Your task to perform on an android device: turn off data saver in the chrome app Image 0: 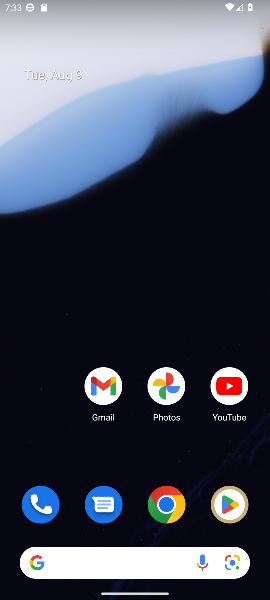
Step 0: press home button
Your task to perform on an android device: turn off data saver in the chrome app Image 1: 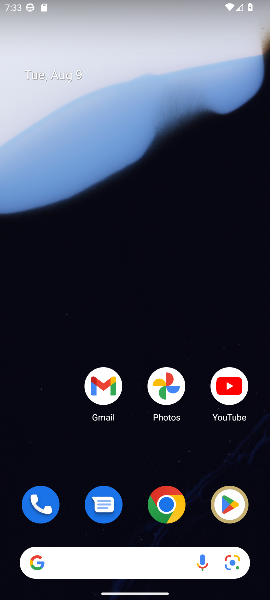
Step 1: drag from (179, 10) to (165, 178)
Your task to perform on an android device: turn off data saver in the chrome app Image 2: 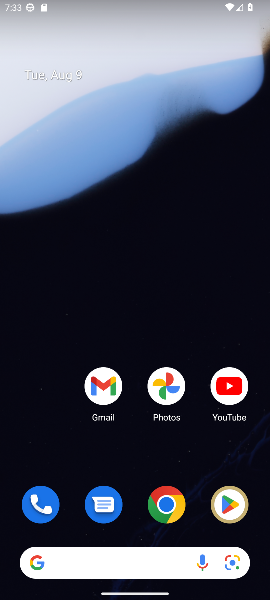
Step 2: drag from (130, 9) to (174, 22)
Your task to perform on an android device: turn off data saver in the chrome app Image 3: 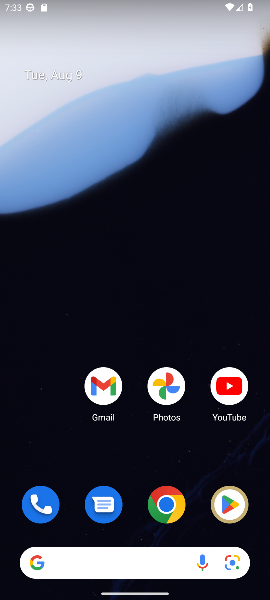
Step 3: click (167, 501)
Your task to perform on an android device: turn off data saver in the chrome app Image 4: 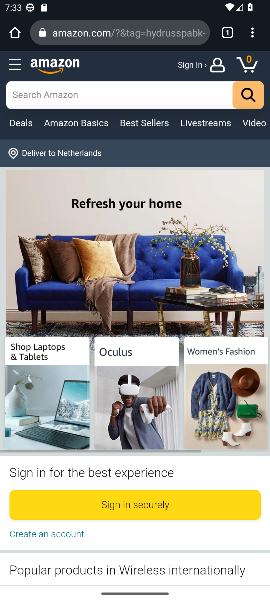
Step 4: task complete